Your task to perform on an android device: turn off location history Image 0: 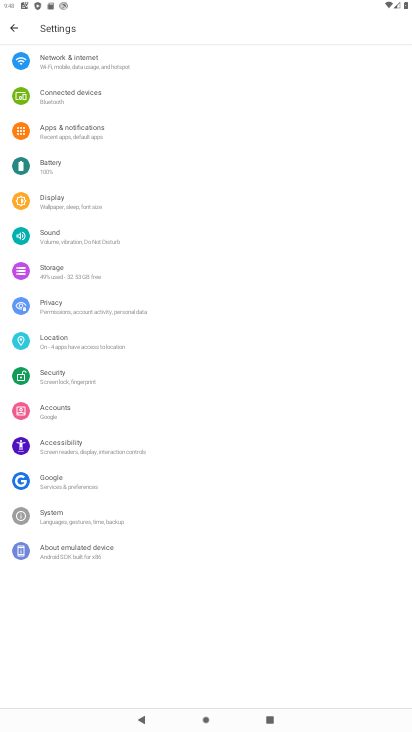
Step 0: click (100, 344)
Your task to perform on an android device: turn off location history Image 1: 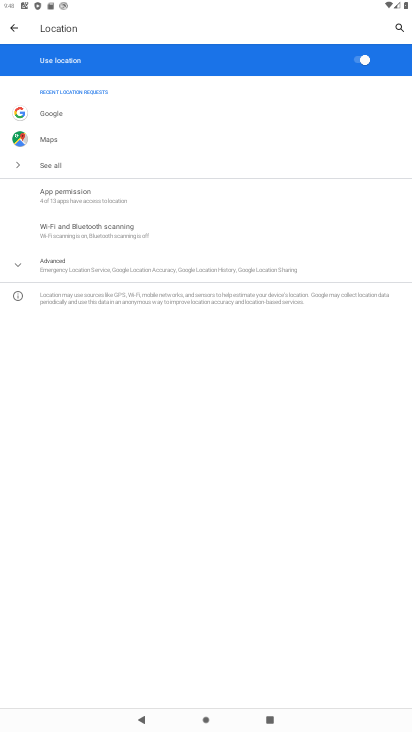
Step 1: task complete